Your task to perform on an android device: Show me productivity apps on the Play Store Image 0: 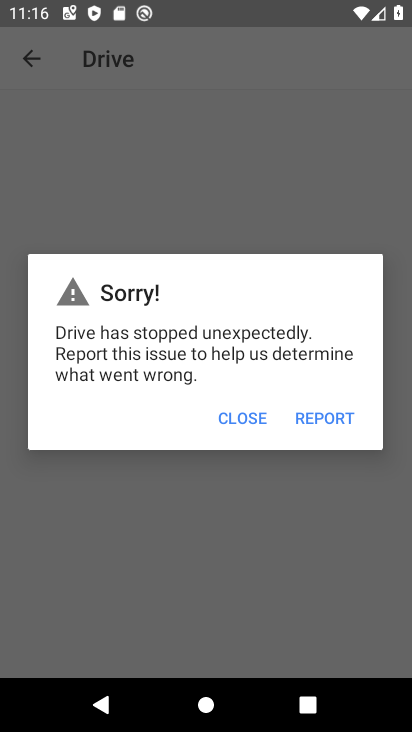
Step 0: press home button
Your task to perform on an android device: Show me productivity apps on the Play Store Image 1: 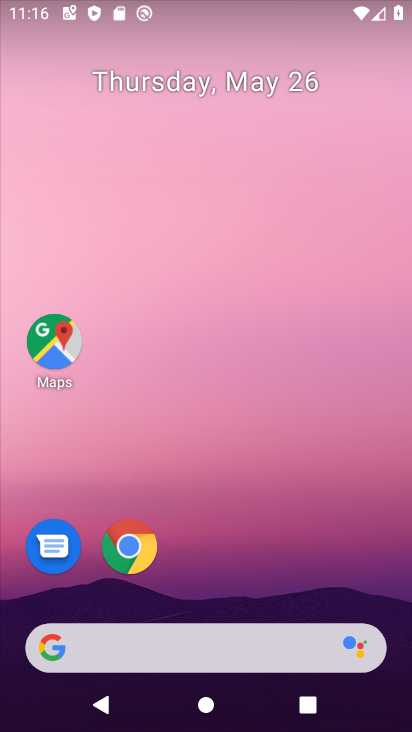
Step 1: drag from (236, 549) to (256, 73)
Your task to perform on an android device: Show me productivity apps on the Play Store Image 2: 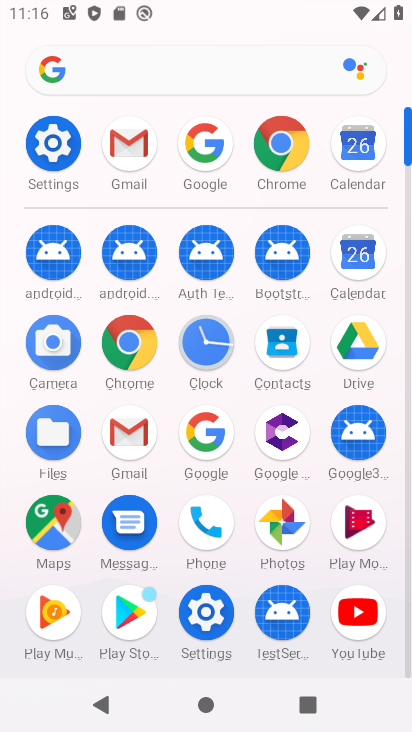
Step 2: click (142, 603)
Your task to perform on an android device: Show me productivity apps on the Play Store Image 3: 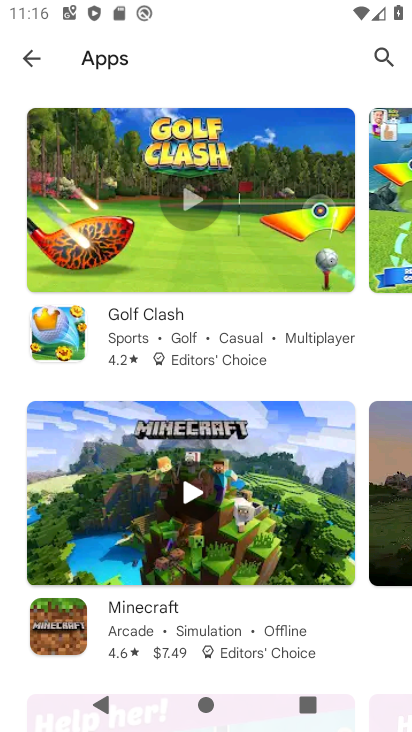
Step 3: task complete